Your task to perform on an android device: Play the last video I watched on Youtube Image 0: 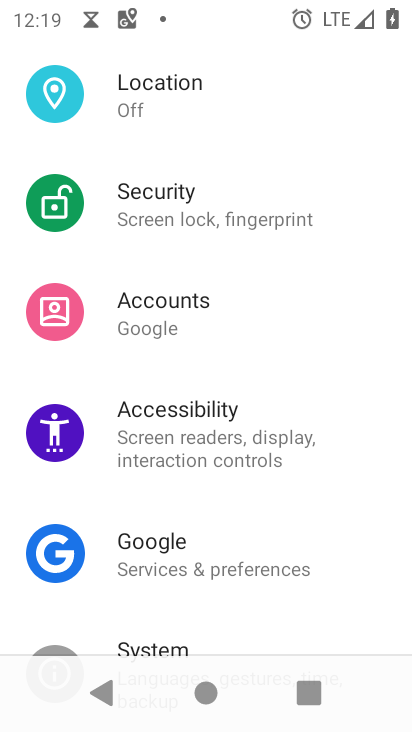
Step 0: press home button
Your task to perform on an android device: Play the last video I watched on Youtube Image 1: 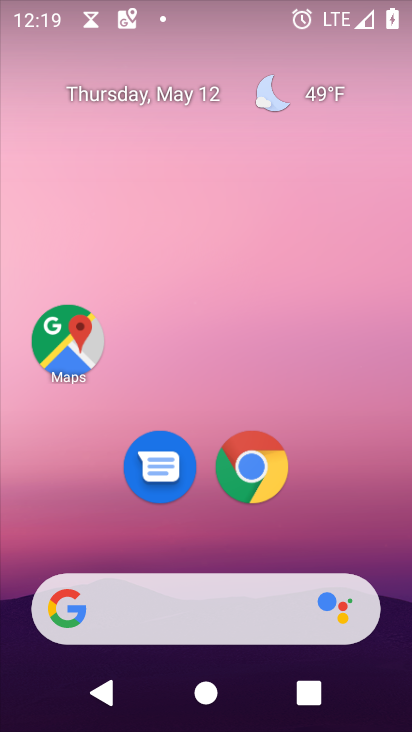
Step 1: drag from (277, 597) to (285, 112)
Your task to perform on an android device: Play the last video I watched on Youtube Image 2: 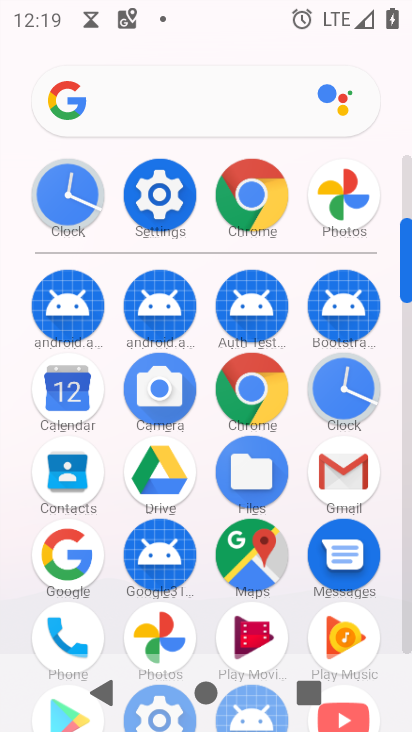
Step 2: drag from (308, 604) to (308, 210)
Your task to perform on an android device: Play the last video I watched on Youtube Image 3: 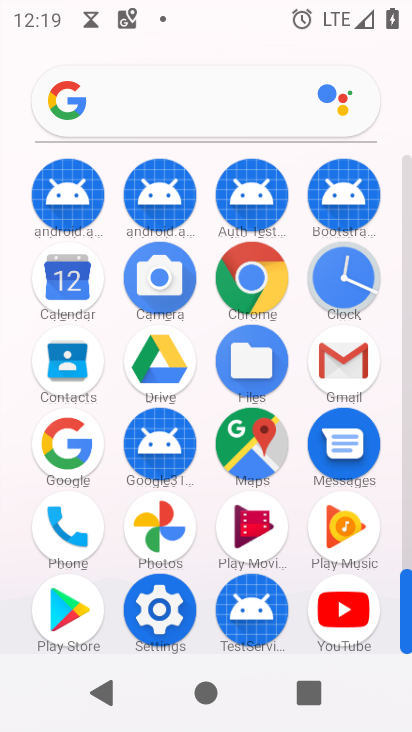
Step 3: click (338, 614)
Your task to perform on an android device: Play the last video I watched on Youtube Image 4: 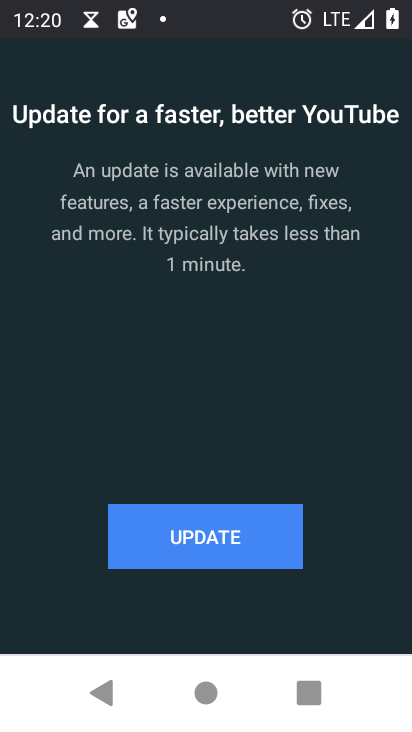
Step 4: click (229, 539)
Your task to perform on an android device: Play the last video I watched on Youtube Image 5: 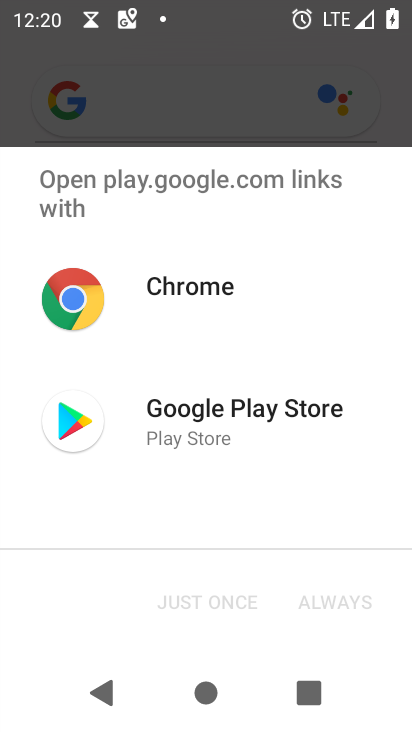
Step 5: click (182, 432)
Your task to perform on an android device: Play the last video I watched on Youtube Image 6: 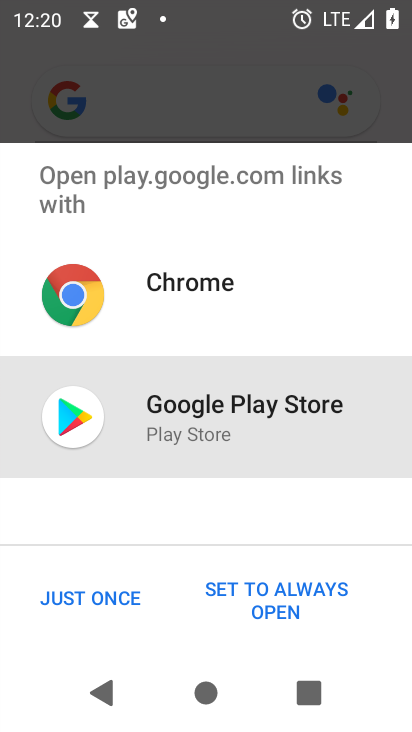
Step 6: click (100, 596)
Your task to perform on an android device: Play the last video I watched on Youtube Image 7: 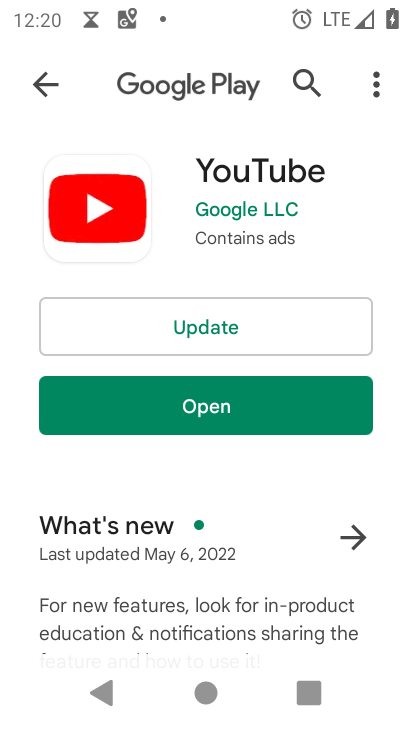
Step 7: click (279, 316)
Your task to perform on an android device: Play the last video I watched on Youtube Image 8: 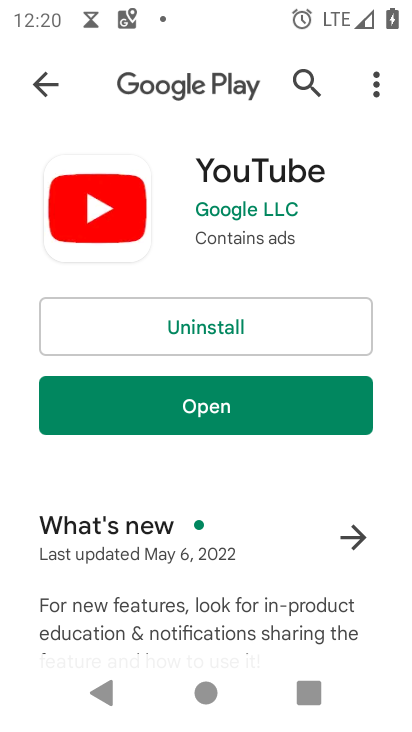
Step 8: click (240, 409)
Your task to perform on an android device: Play the last video I watched on Youtube Image 9: 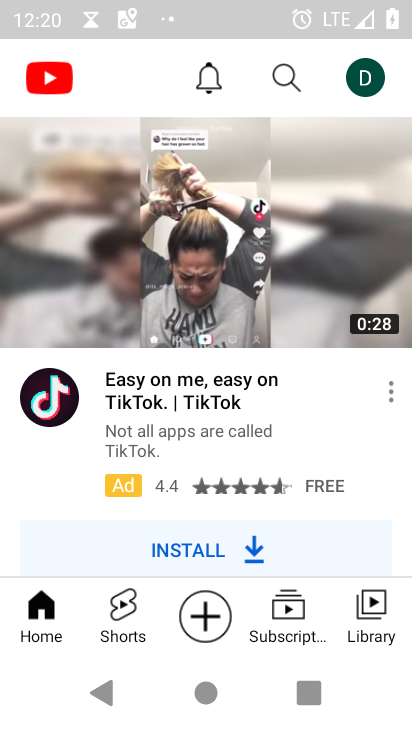
Step 9: click (368, 610)
Your task to perform on an android device: Play the last video I watched on Youtube Image 10: 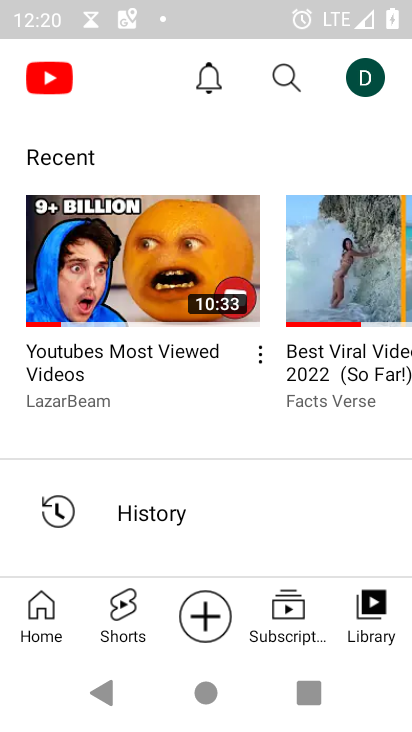
Step 10: click (154, 512)
Your task to perform on an android device: Play the last video I watched on Youtube Image 11: 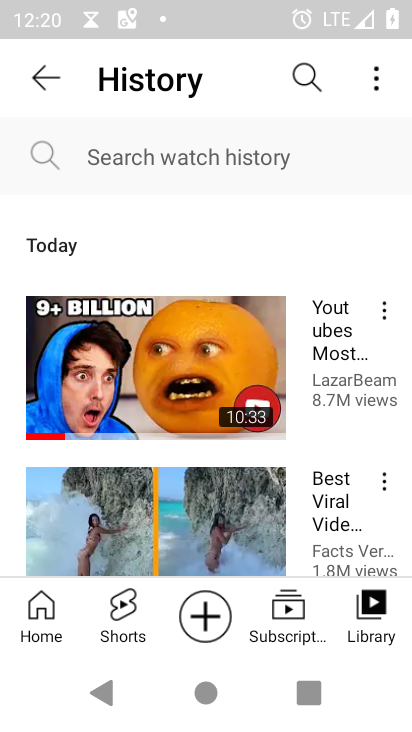
Step 11: click (127, 385)
Your task to perform on an android device: Play the last video I watched on Youtube Image 12: 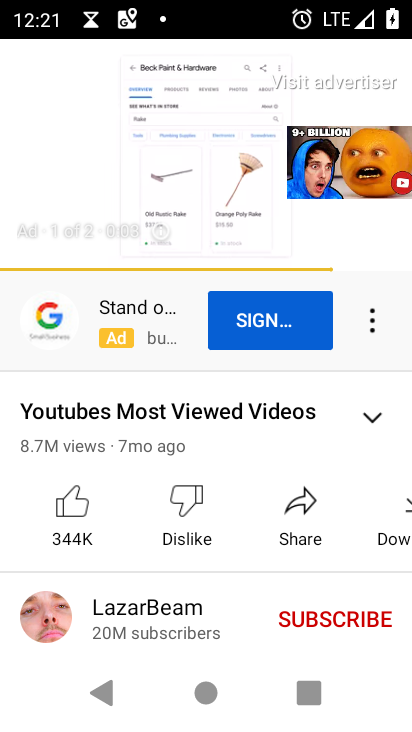
Step 12: click (200, 179)
Your task to perform on an android device: Play the last video I watched on Youtube Image 13: 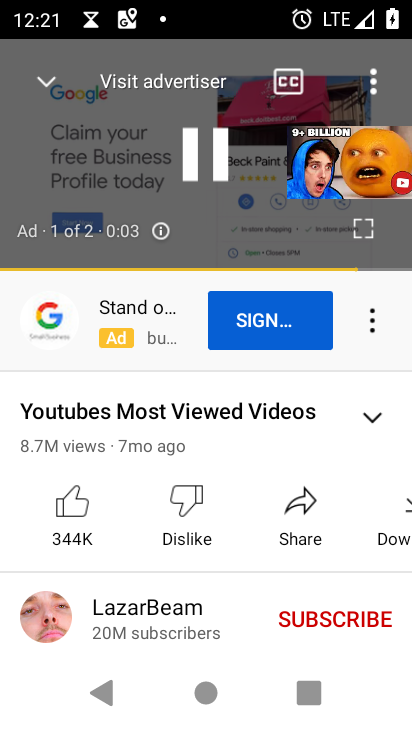
Step 13: click (208, 161)
Your task to perform on an android device: Play the last video I watched on Youtube Image 14: 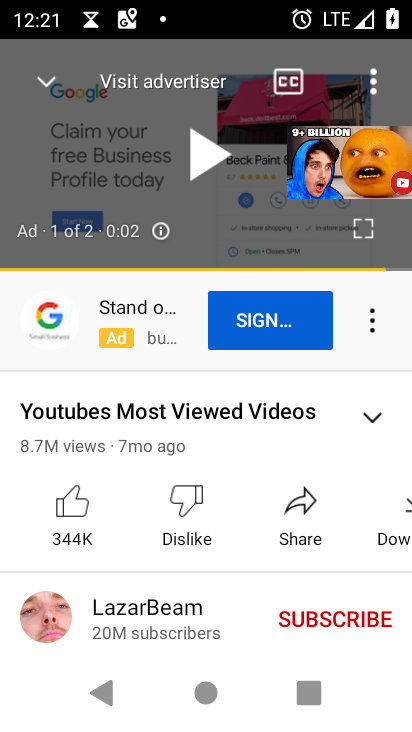
Step 14: task complete